Your task to perform on an android device: Go to internet settings Image 0: 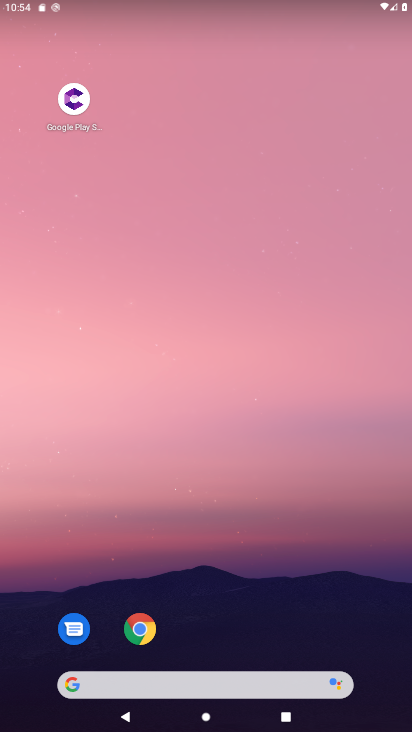
Step 0: drag from (245, 634) to (252, 170)
Your task to perform on an android device: Go to internet settings Image 1: 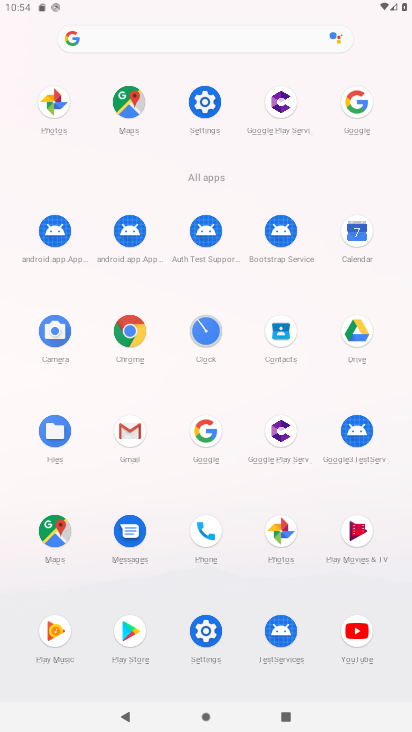
Step 1: click (203, 102)
Your task to perform on an android device: Go to internet settings Image 2: 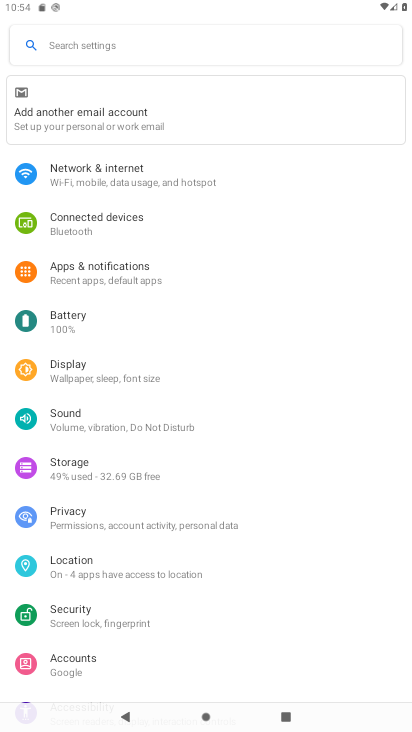
Step 2: click (171, 181)
Your task to perform on an android device: Go to internet settings Image 3: 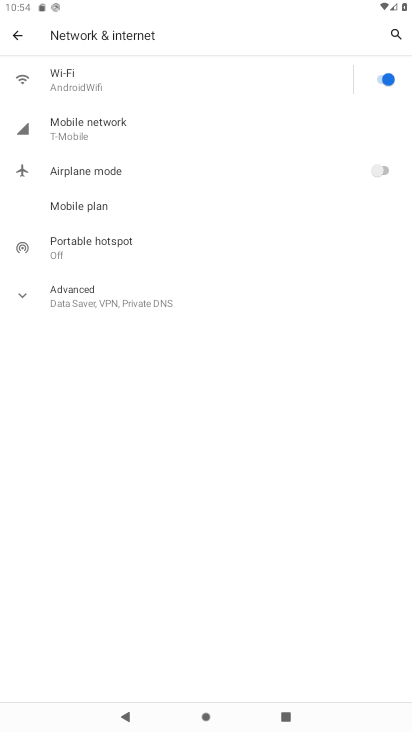
Step 3: task complete